Your task to perform on an android device: Open Chrome and go to the settings page Image 0: 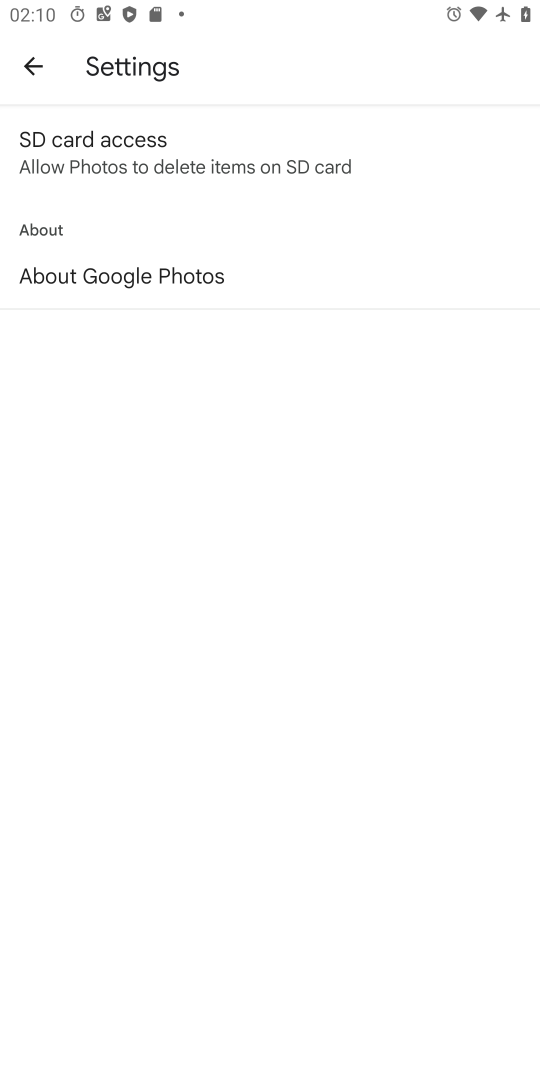
Step 0: press home button
Your task to perform on an android device: Open Chrome and go to the settings page Image 1: 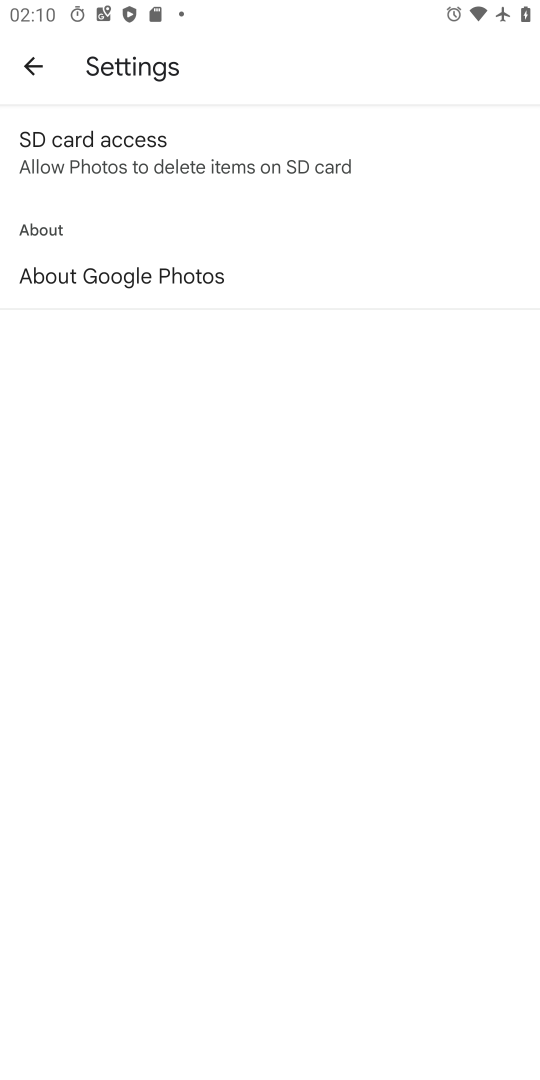
Step 1: press home button
Your task to perform on an android device: Open Chrome and go to the settings page Image 2: 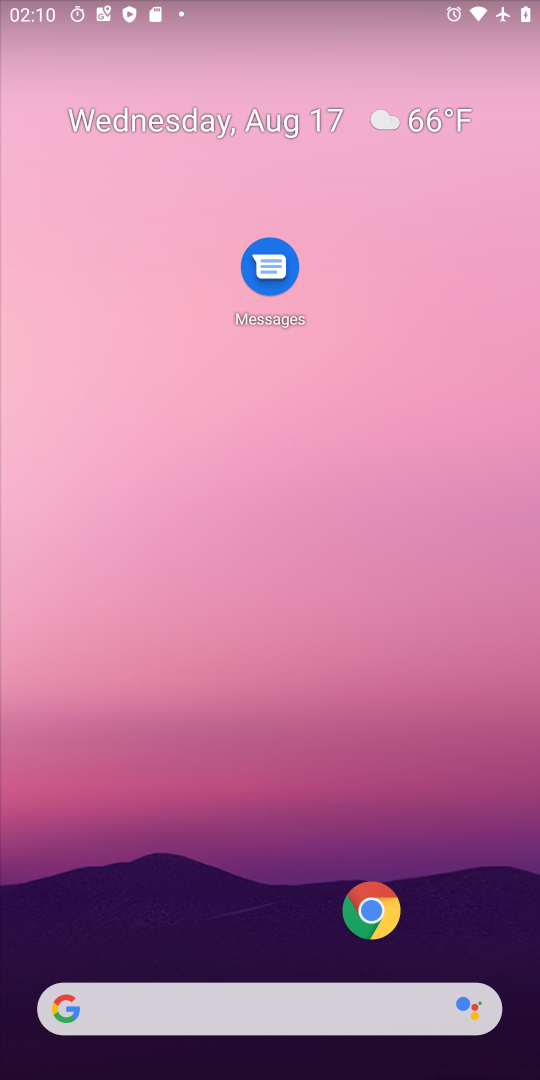
Step 2: drag from (448, 756) to (480, 75)
Your task to perform on an android device: Open Chrome and go to the settings page Image 3: 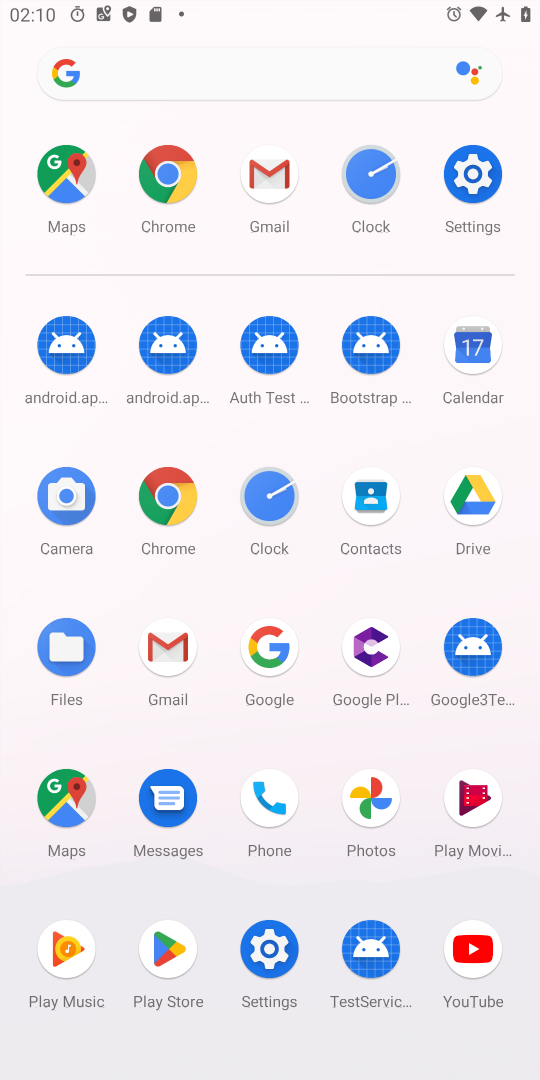
Step 3: click (161, 494)
Your task to perform on an android device: Open Chrome and go to the settings page Image 4: 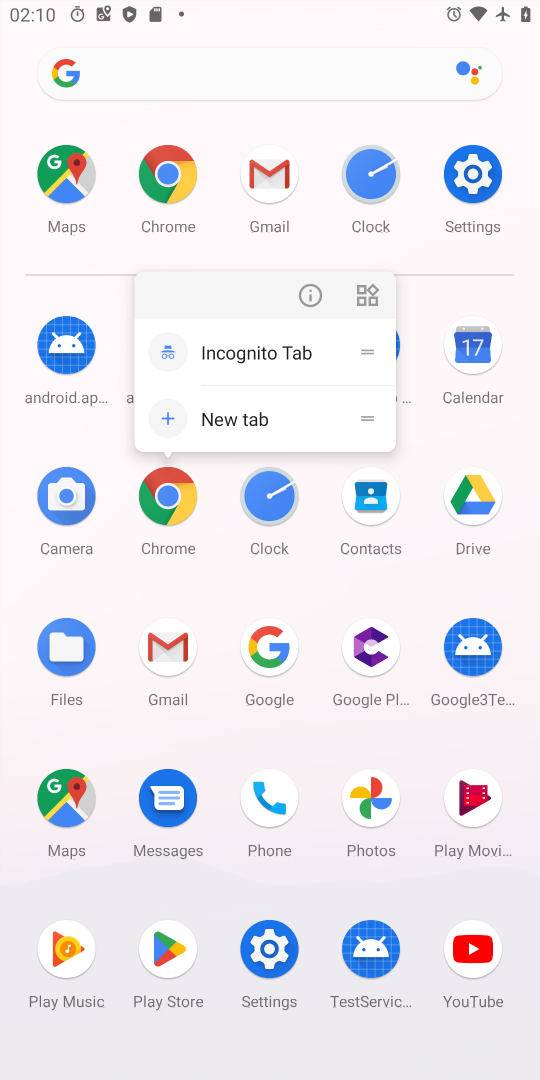
Step 4: click (165, 501)
Your task to perform on an android device: Open Chrome and go to the settings page Image 5: 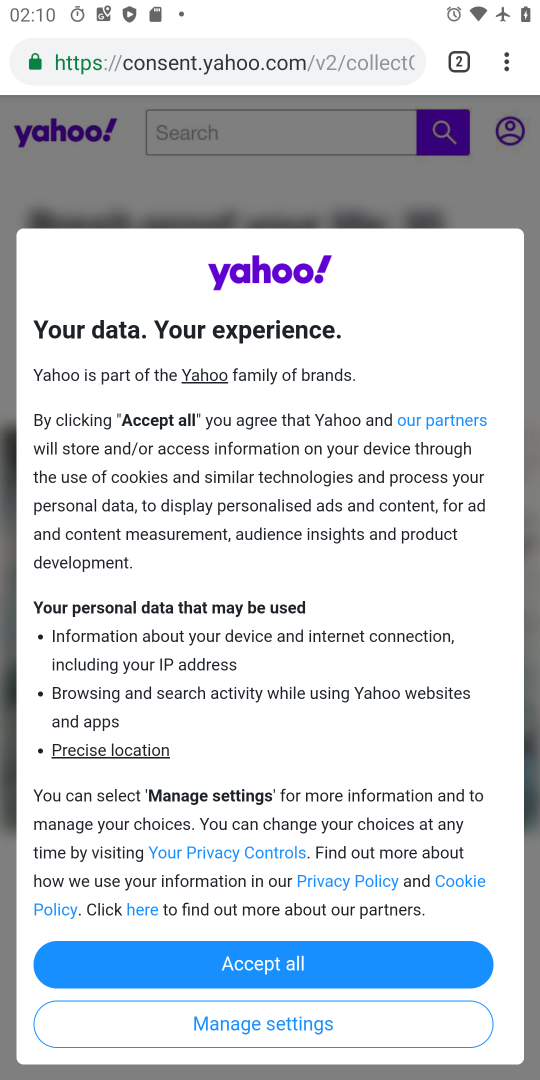
Step 5: task complete